Your task to perform on an android device: Toggle the flashlight Image 0: 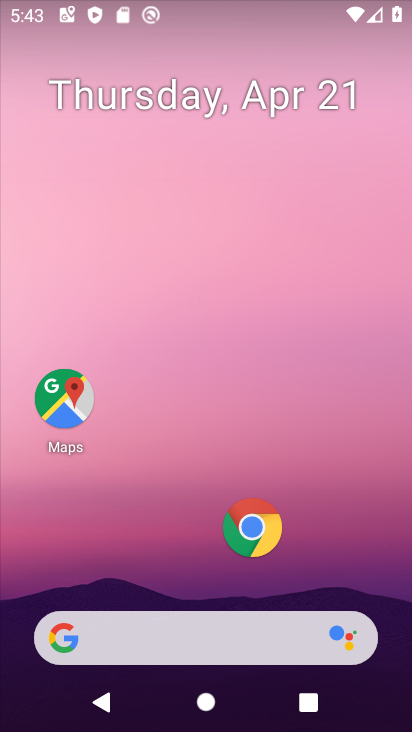
Step 0: drag from (180, 451) to (278, 27)
Your task to perform on an android device: Toggle the flashlight Image 1: 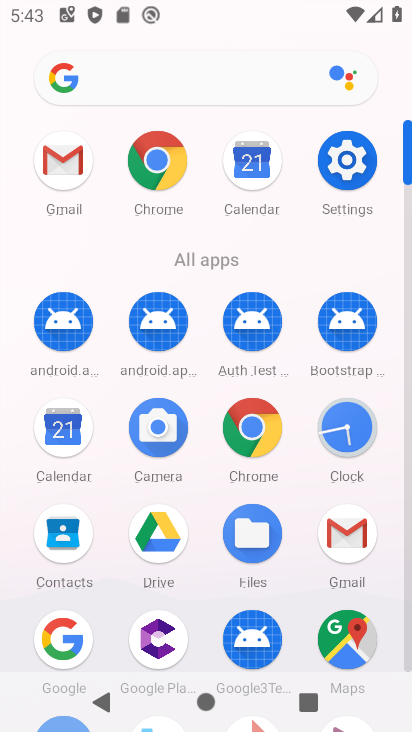
Step 1: click (349, 149)
Your task to perform on an android device: Toggle the flashlight Image 2: 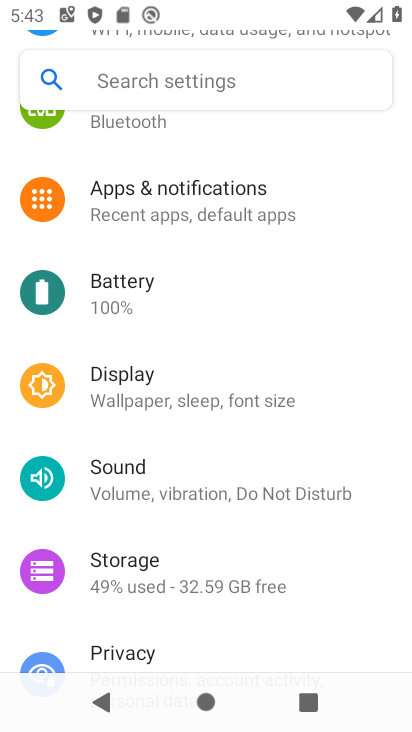
Step 2: click (168, 74)
Your task to perform on an android device: Toggle the flashlight Image 3: 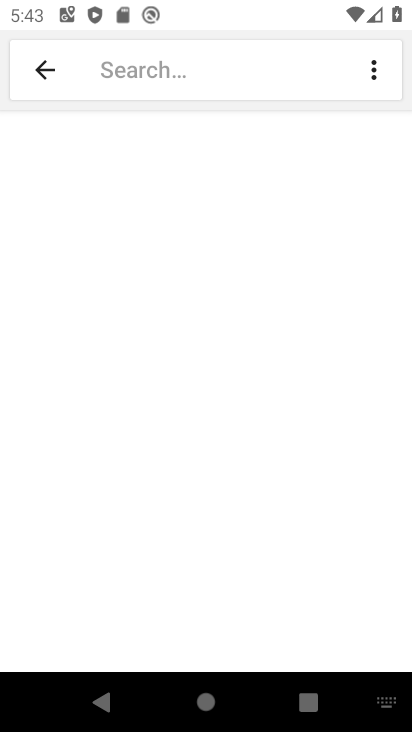
Step 3: type "flashlight"
Your task to perform on an android device: Toggle the flashlight Image 4: 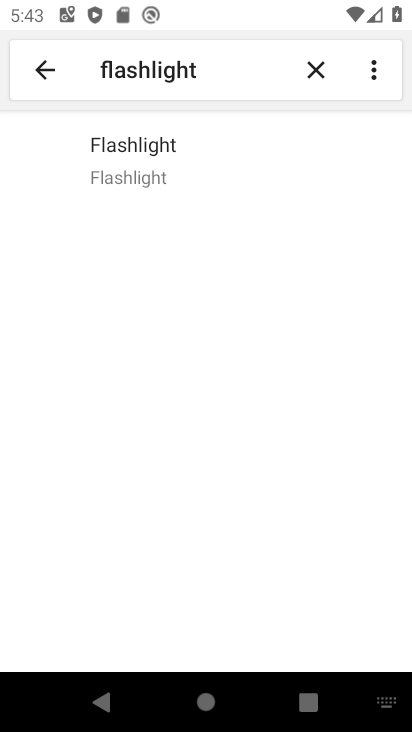
Step 4: click (157, 156)
Your task to perform on an android device: Toggle the flashlight Image 5: 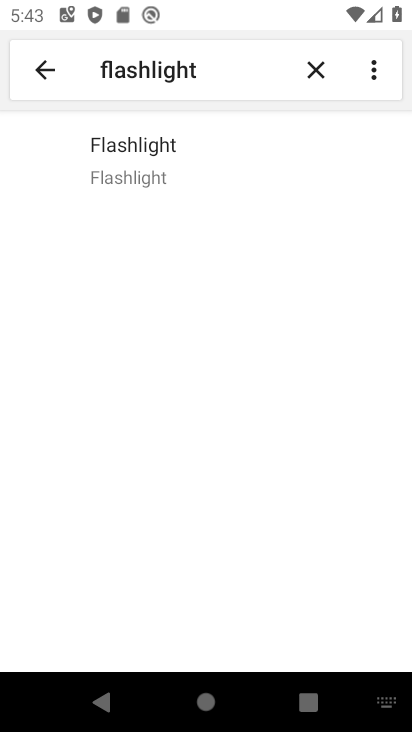
Step 5: task complete